Your task to perform on an android device: What is the recent news? Image 0: 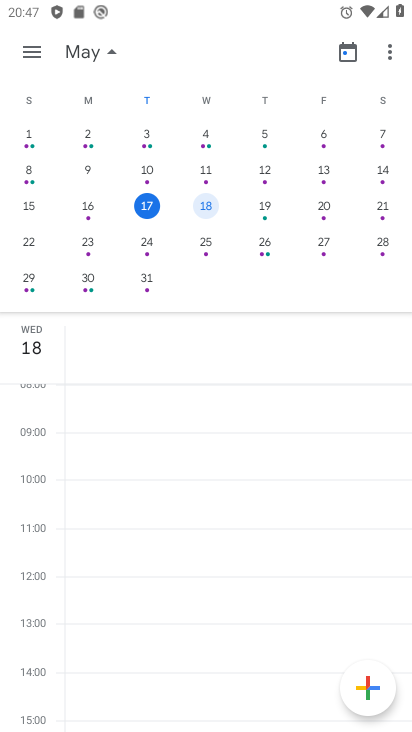
Step 0: press home button
Your task to perform on an android device: What is the recent news? Image 1: 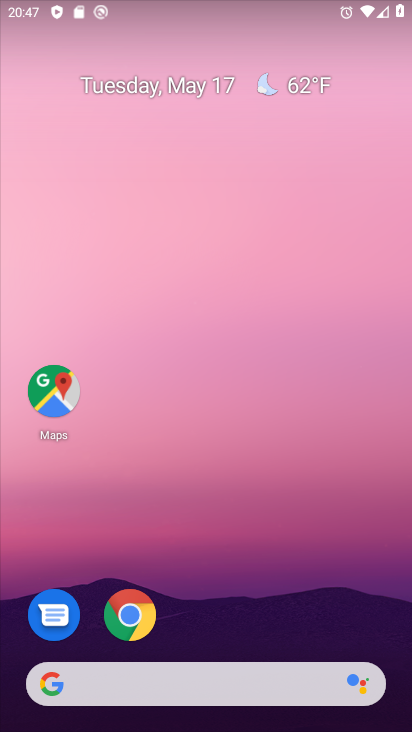
Step 1: click (141, 615)
Your task to perform on an android device: What is the recent news? Image 2: 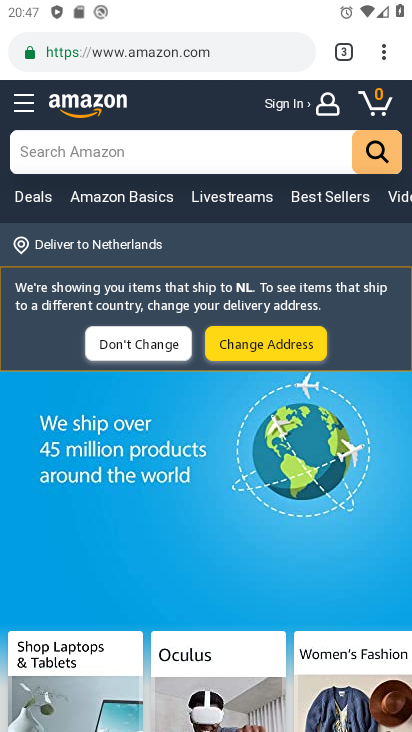
Step 2: click (235, 70)
Your task to perform on an android device: What is the recent news? Image 3: 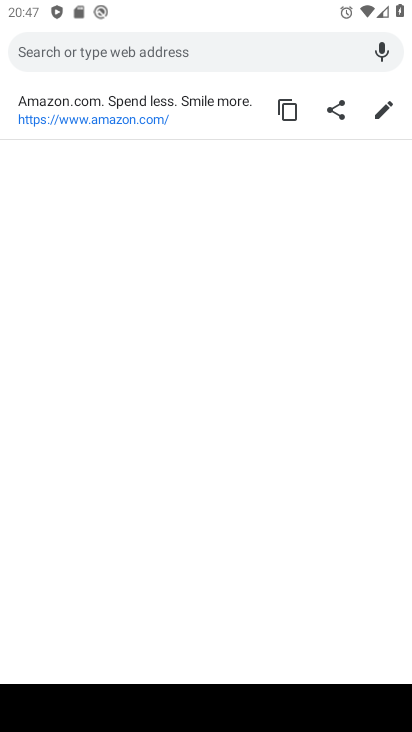
Step 3: type "What is the recent news?"
Your task to perform on an android device: What is the recent news? Image 4: 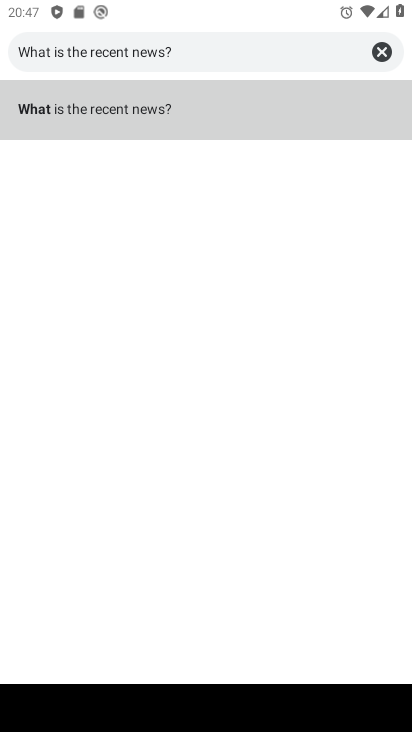
Step 4: click (87, 113)
Your task to perform on an android device: What is the recent news? Image 5: 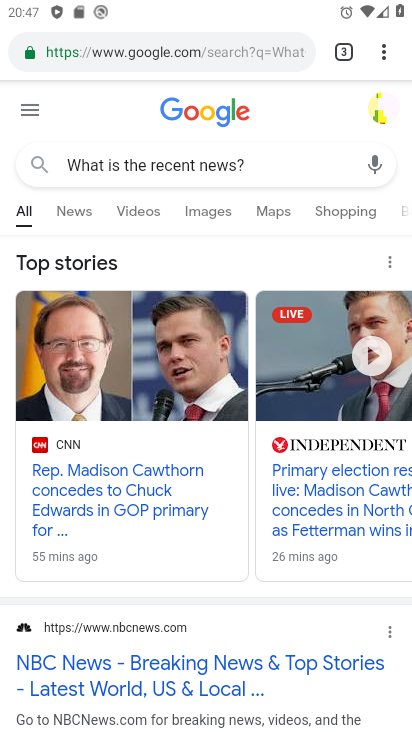
Step 5: drag from (301, 473) to (204, 414)
Your task to perform on an android device: What is the recent news? Image 6: 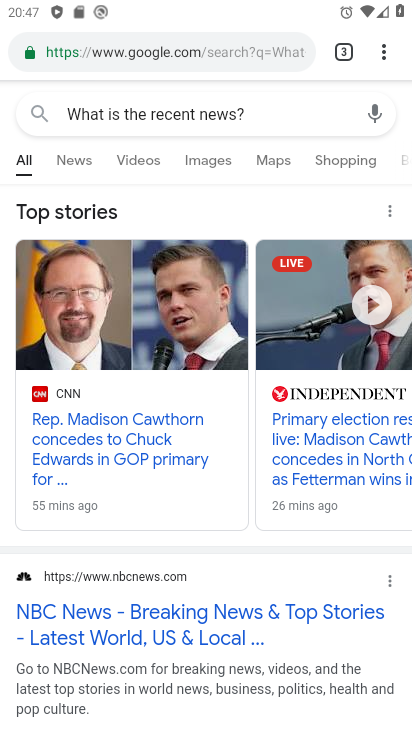
Step 6: click (67, 161)
Your task to perform on an android device: What is the recent news? Image 7: 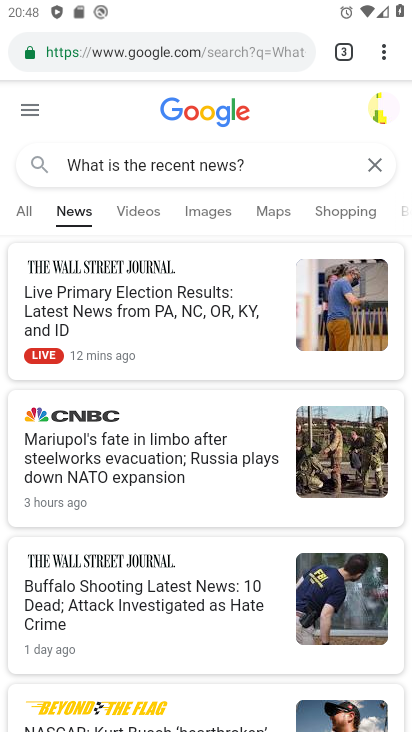
Step 7: task complete